Your task to perform on an android device: move a message to another label in the gmail app Image 0: 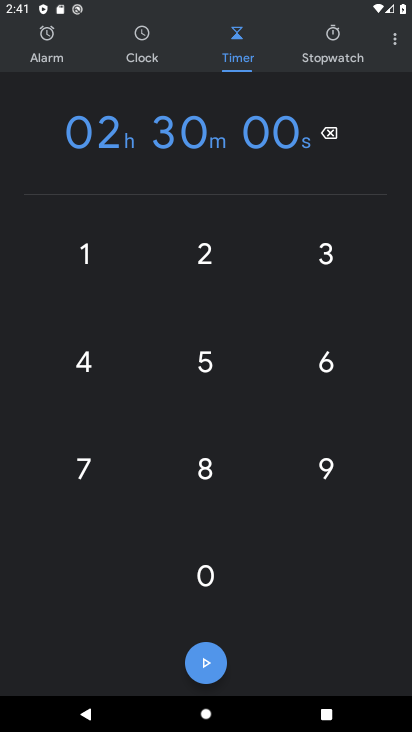
Step 0: press home button
Your task to perform on an android device: move a message to another label in the gmail app Image 1: 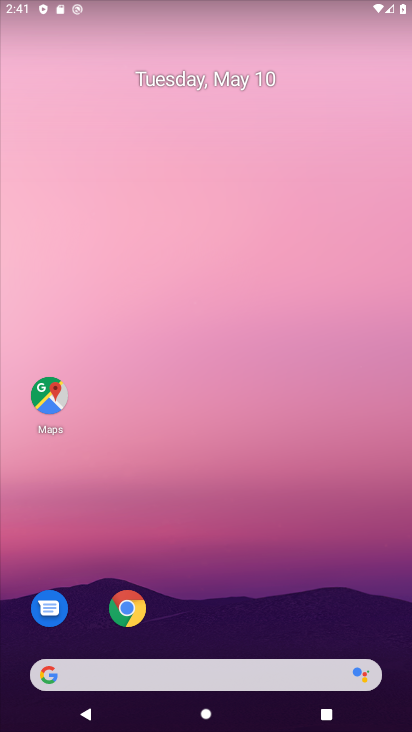
Step 1: drag from (339, 621) to (230, 158)
Your task to perform on an android device: move a message to another label in the gmail app Image 2: 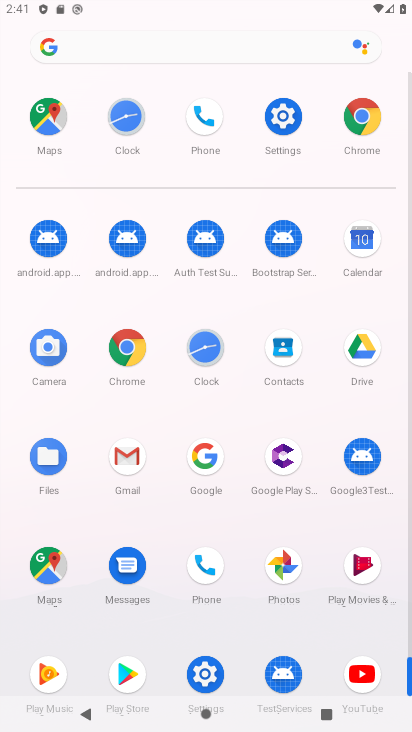
Step 2: click (125, 458)
Your task to perform on an android device: move a message to another label in the gmail app Image 3: 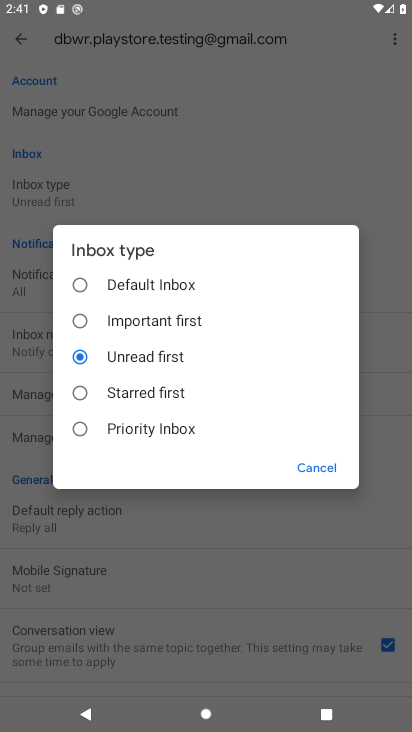
Step 3: click (321, 466)
Your task to perform on an android device: move a message to another label in the gmail app Image 4: 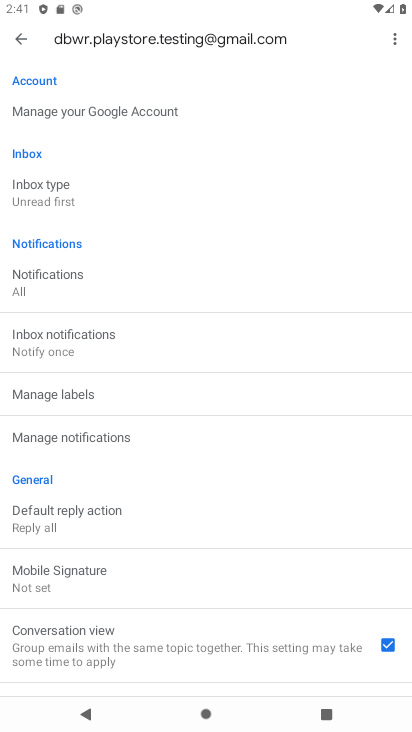
Step 4: press back button
Your task to perform on an android device: move a message to another label in the gmail app Image 5: 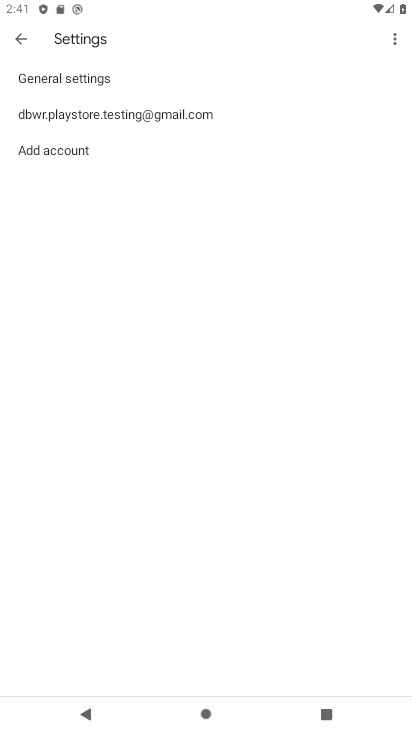
Step 5: press back button
Your task to perform on an android device: move a message to another label in the gmail app Image 6: 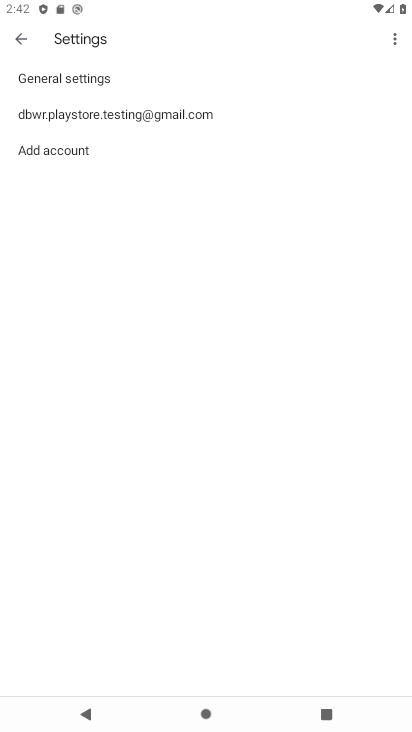
Step 6: press back button
Your task to perform on an android device: move a message to another label in the gmail app Image 7: 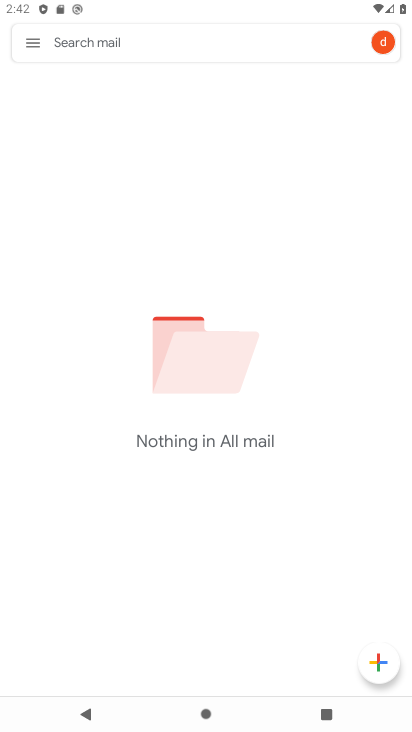
Step 7: click (30, 40)
Your task to perform on an android device: move a message to another label in the gmail app Image 8: 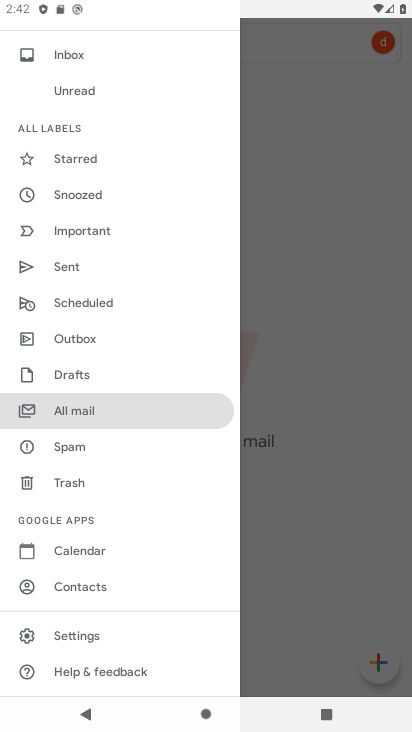
Step 8: click (72, 50)
Your task to perform on an android device: move a message to another label in the gmail app Image 9: 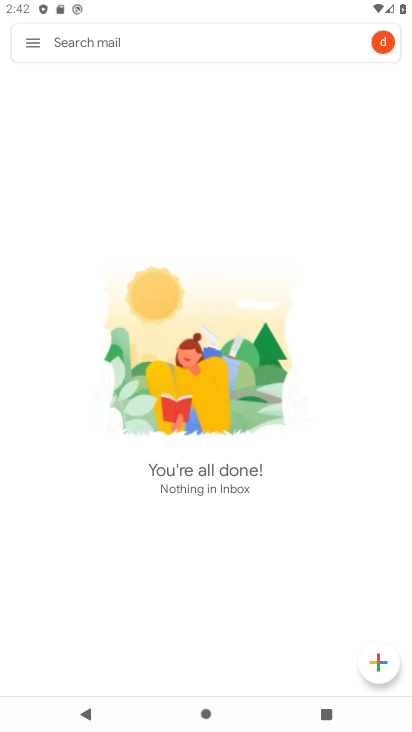
Step 9: task complete